Your task to perform on an android device: allow notifications from all sites in the chrome app Image 0: 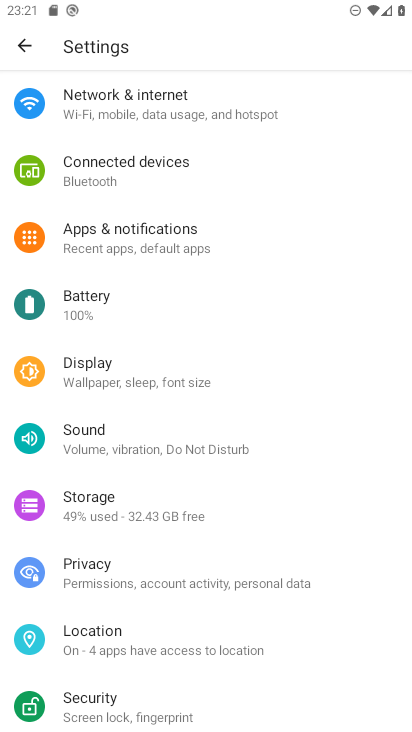
Step 0: press home button
Your task to perform on an android device: allow notifications from all sites in the chrome app Image 1: 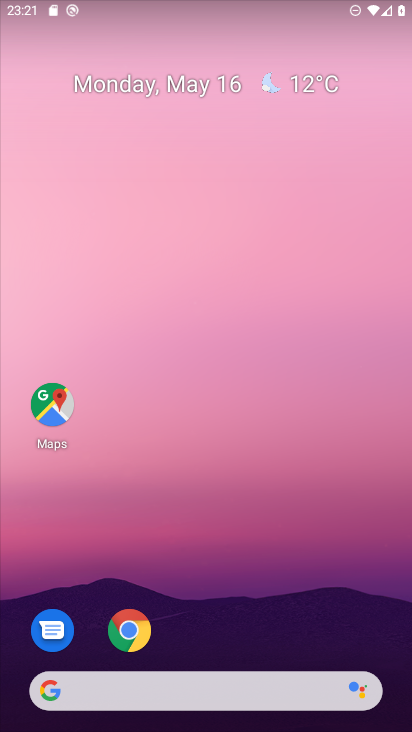
Step 1: click (128, 658)
Your task to perform on an android device: allow notifications from all sites in the chrome app Image 2: 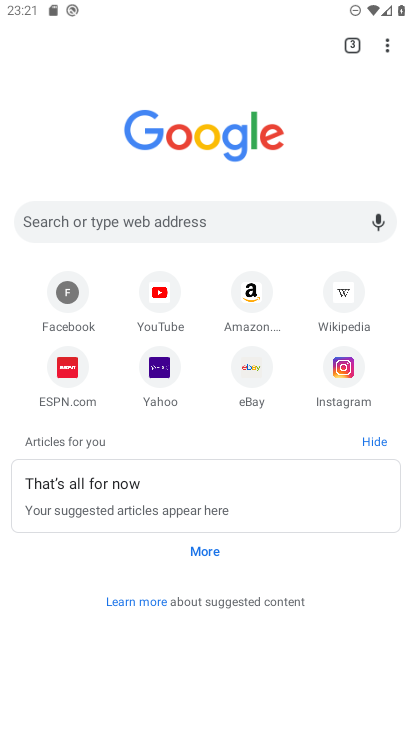
Step 2: click (389, 39)
Your task to perform on an android device: allow notifications from all sites in the chrome app Image 3: 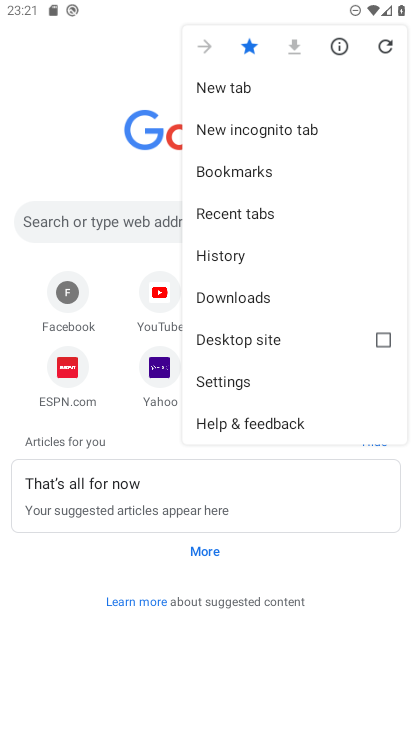
Step 3: click (266, 382)
Your task to perform on an android device: allow notifications from all sites in the chrome app Image 4: 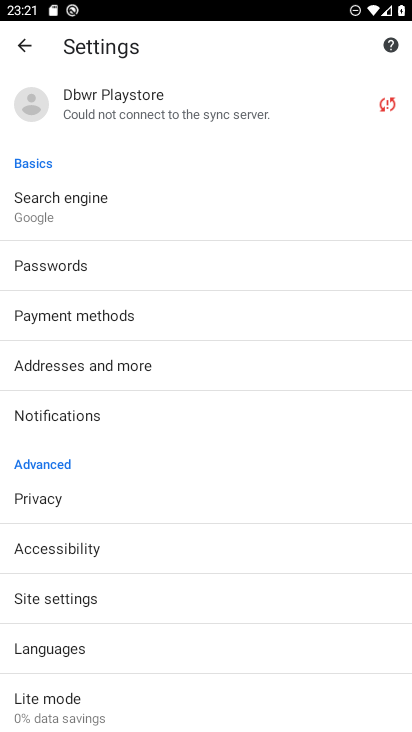
Step 4: click (220, 412)
Your task to perform on an android device: allow notifications from all sites in the chrome app Image 5: 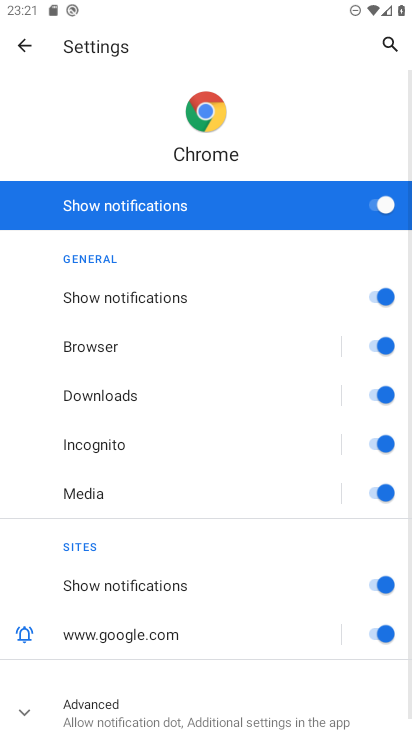
Step 5: task complete